Your task to perform on an android device: Search for sushi restaurants on Maps Image 0: 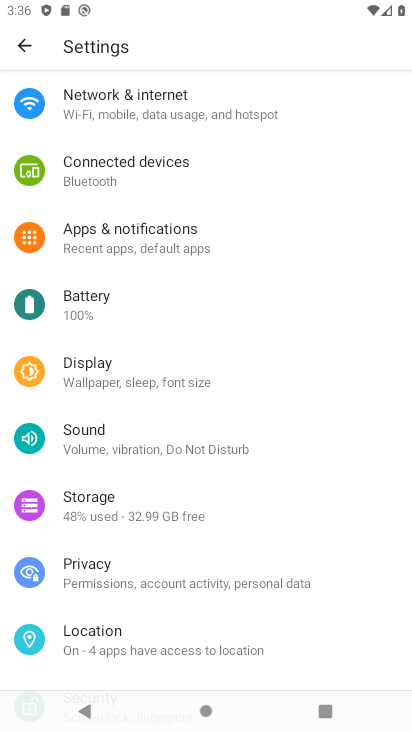
Step 0: press home button
Your task to perform on an android device: Search for sushi restaurants on Maps Image 1: 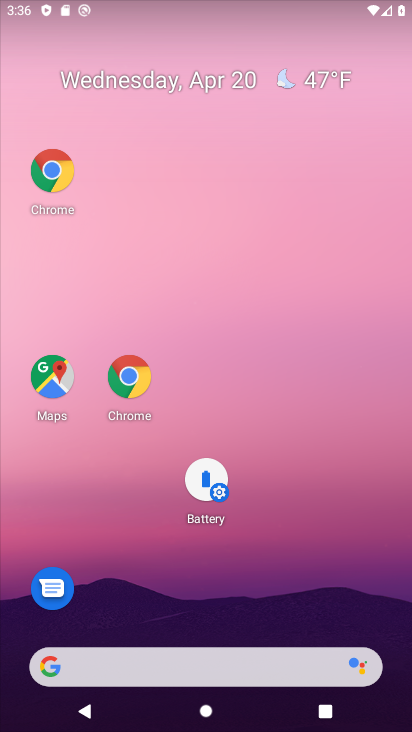
Step 1: drag from (307, 569) to (333, 40)
Your task to perform on an android device: Search for sushi restaurants on Maps Image 2: 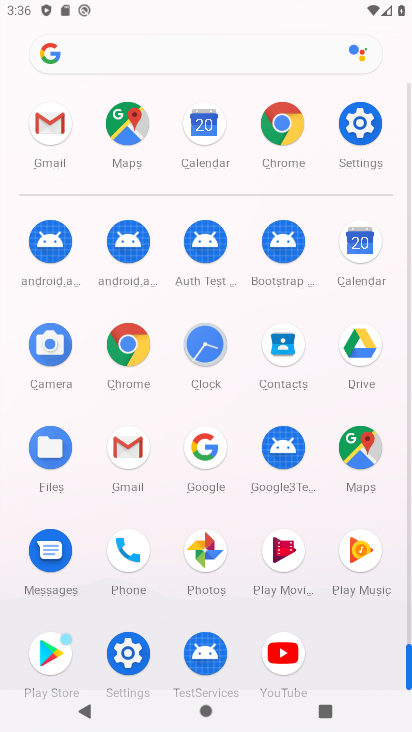
Step 2: click (364, 458)
Your task to perform on an android device: Search for sushi restaurants on Maps Image 3: 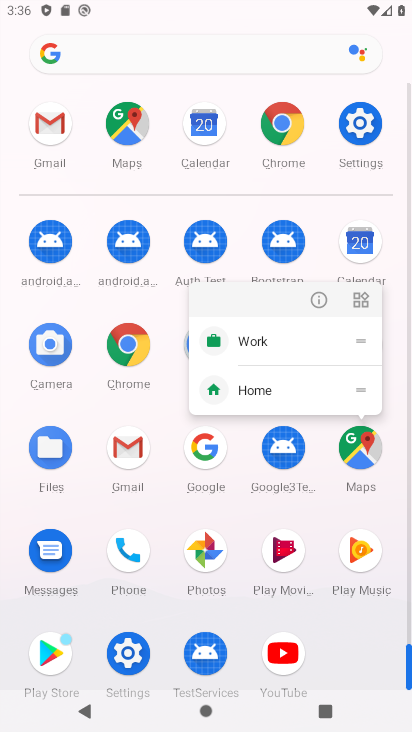
Step 3: click (364, 458)
Your task to perform on an android device: Search for sushi restaurants on Maps Image 4: 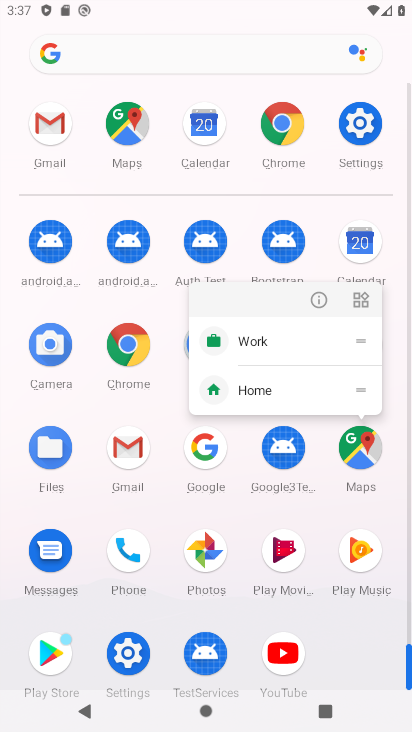
Step 4: click (364, 458)
Your task to perform on an android device: Search for sushi restaurants on Maps Image 5: 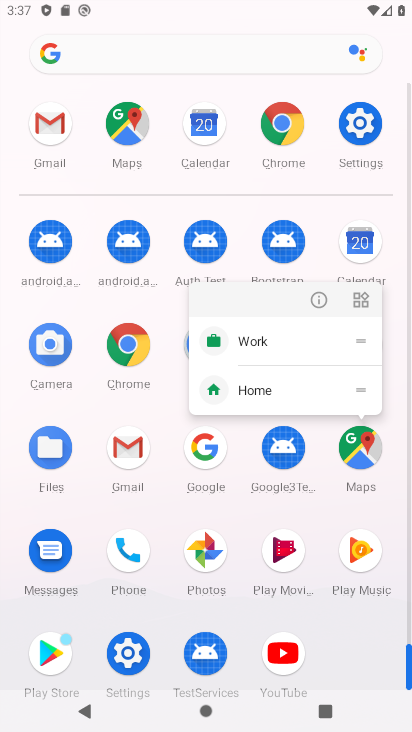
Step 5: click (364, 458)
Your task to perform on an android device: Search for sushi restaurants on Maps Image 6: 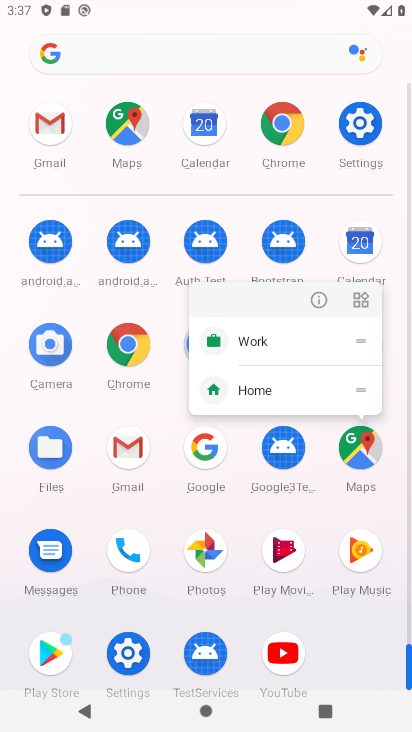
Step 6: click (364, 437)
Your task to perform on an android device: Search for sushi restaurants on Maps Image 7: 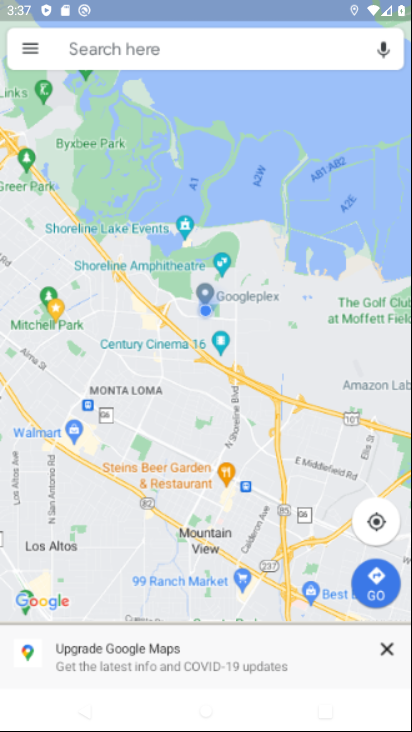
Step 7: click (364, 437)
Your task to perform on an android device: Search for sushi restaurants on Maps Image 8: 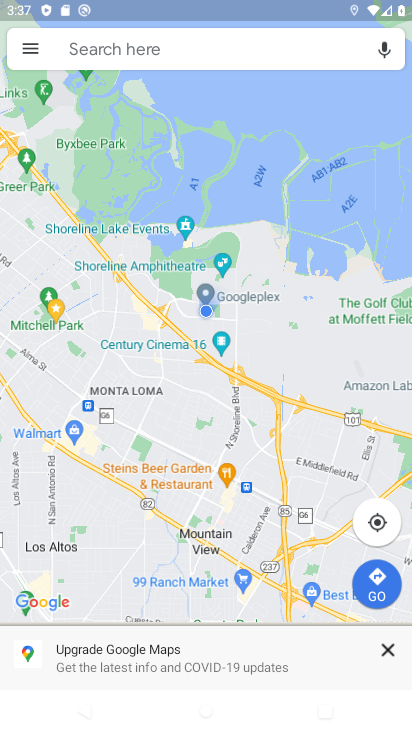
Step 8: click (276, 37)
Your task to perform on an android device: Search for sushi restaurants on Maps Image 9: 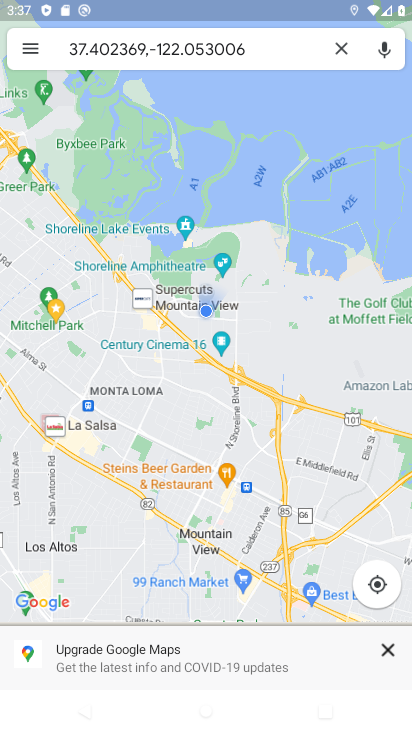
Step 9: click (346, 43)
Your task to perform on an android device: Search for sushi restaurants on Maps Image 10: 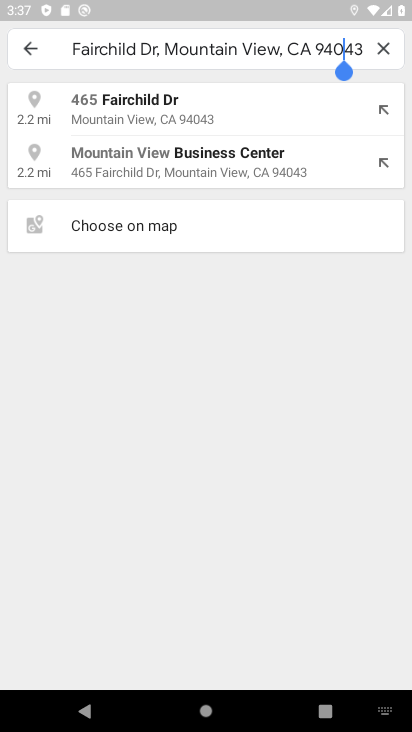
Step 10: click (384, 47)
Your task to perform on an android device: Search for sushi restaurants on Maps Image 11: 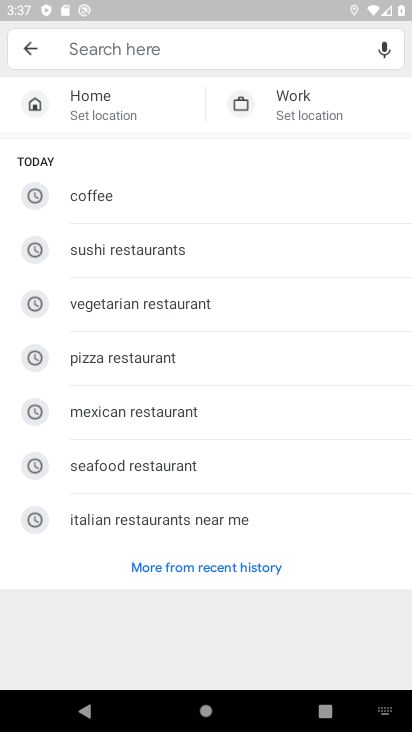
Step 11: click (252, 58)
Your task to perform on an android device: Search for sushi restaurants on Maps Image 12: 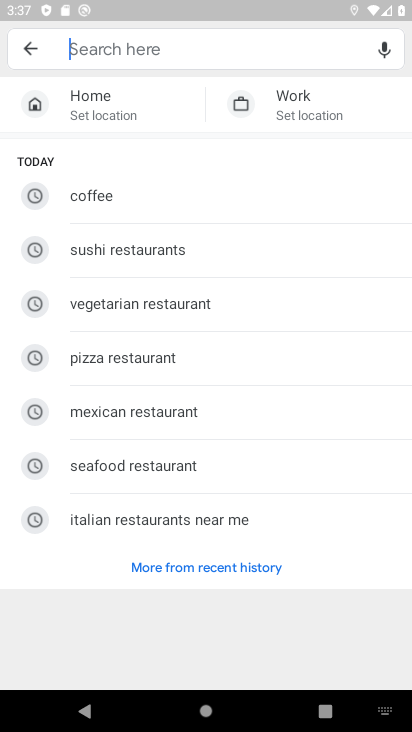
Step 12: type "sushi restaurant"
Your task to perform on an android device: Search for sushi restaurants on Maps Image 13: 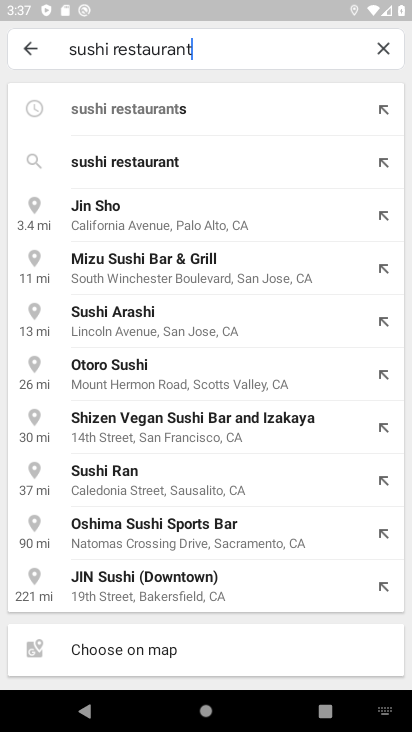
Step 13: click (186, 162)
Your task to perform on an android device: Search for sushi restaurants on Maps Image 14: 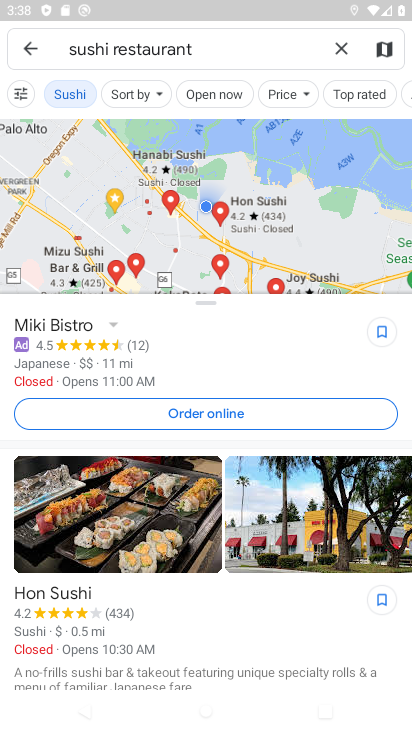
Step 14: task complete